Your task to perform on an android device: turn off location Image 0: 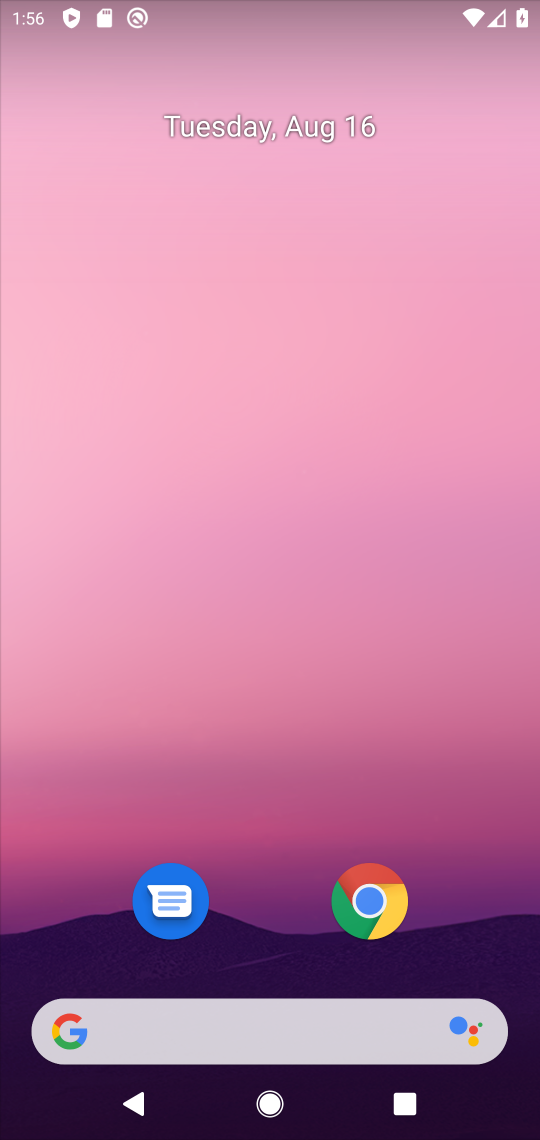
Step 0: press home button
Your task to perform on an android device: turn off location Image 1: 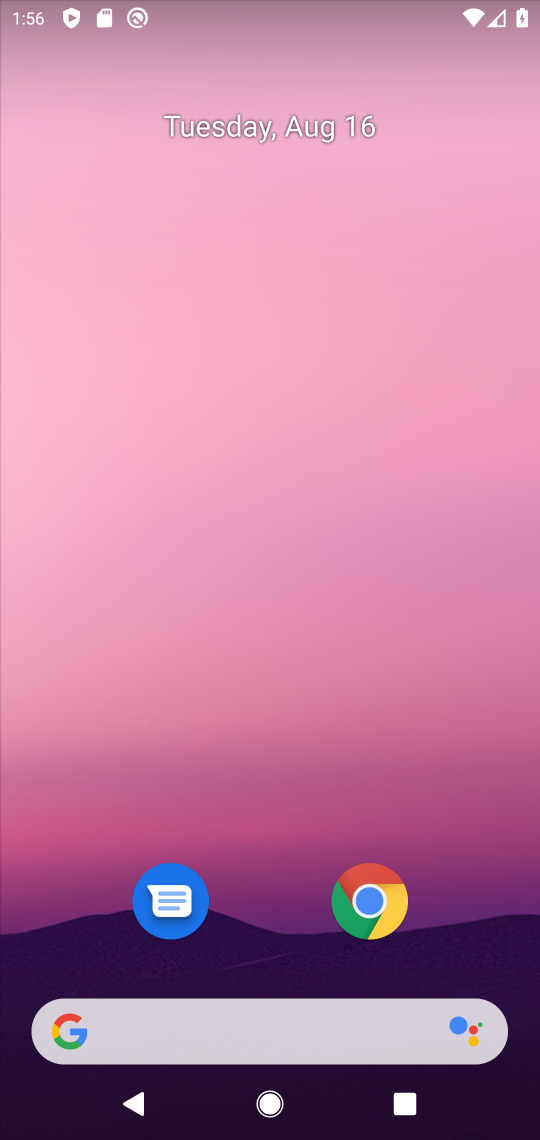
Step 1: drag from (368, 783) to (257, 139)
Your task to perform on an android device: turn off location Image 2: 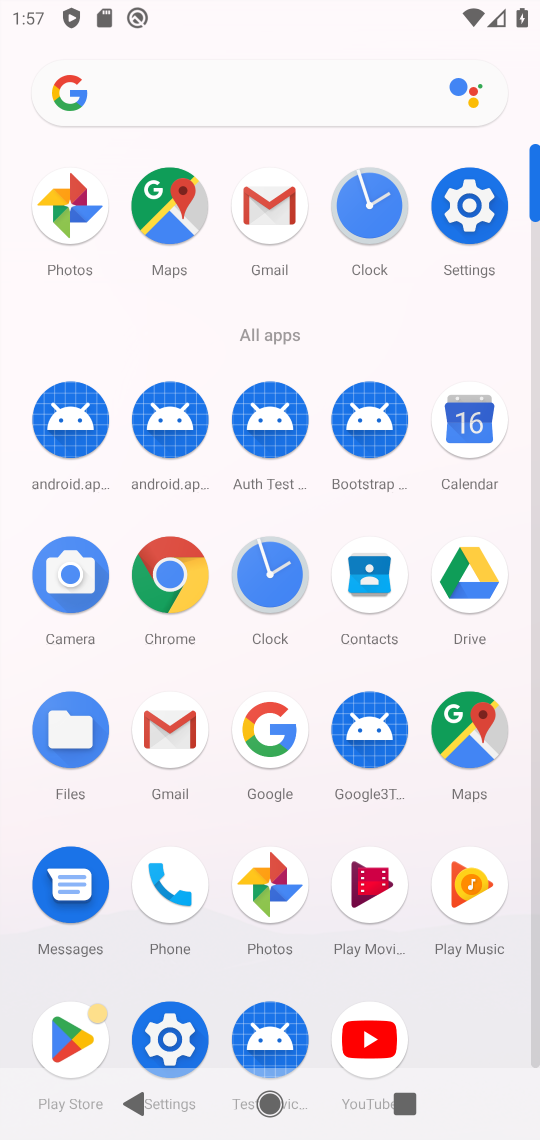
Step 2: click (482, 213)
Your task to perform on an android device: turn off location Image 3: 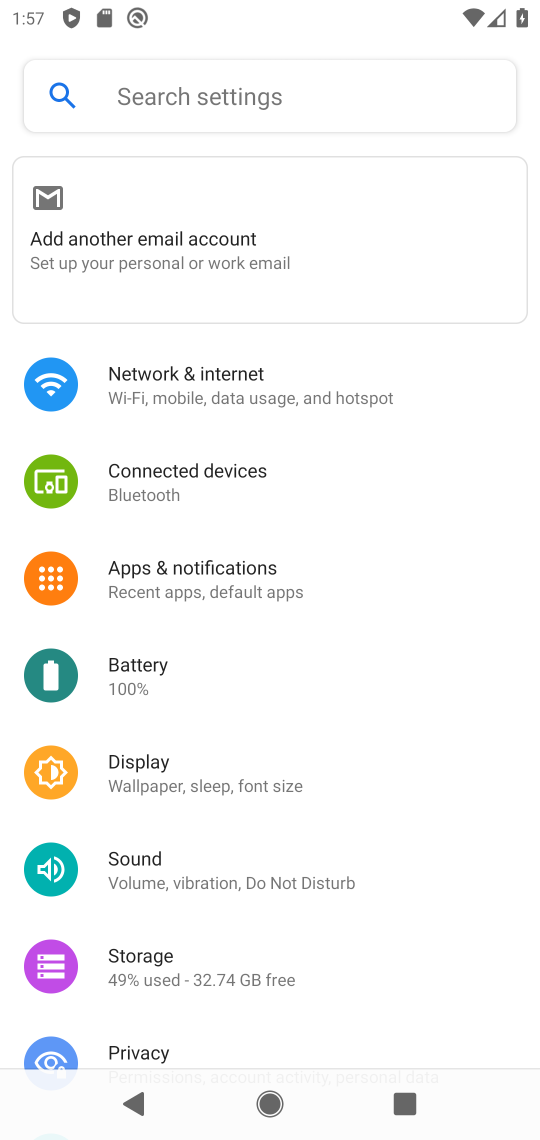
Step 3: drag from (205, 915) to (263, 368)
Your task to perform on an android device: turn off location Image 4: 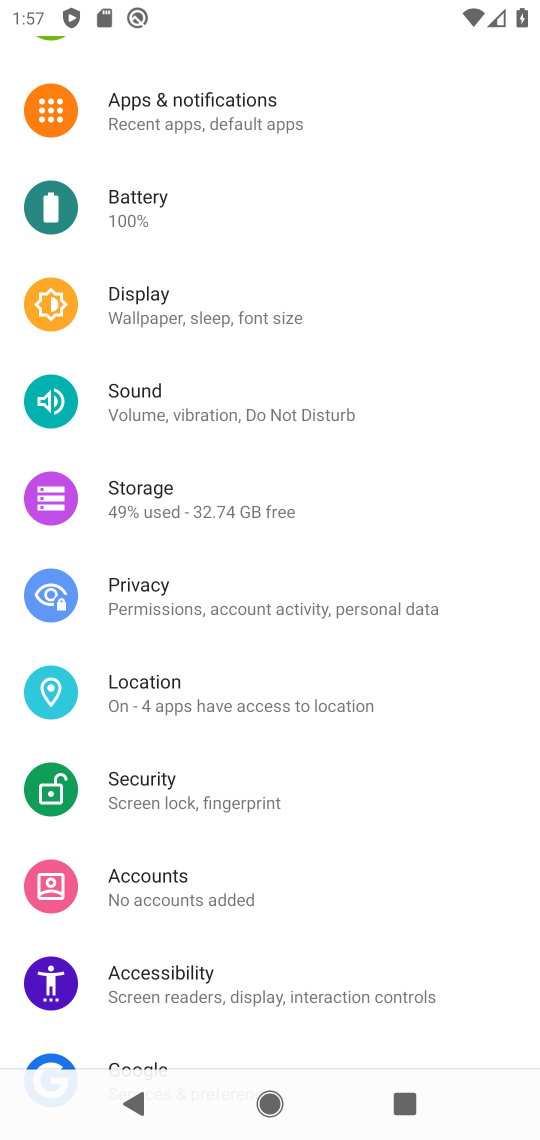
Step 4: drag from (143, 822) to (148, 725)
Your task to perform on an android device: turn off location Image 5: 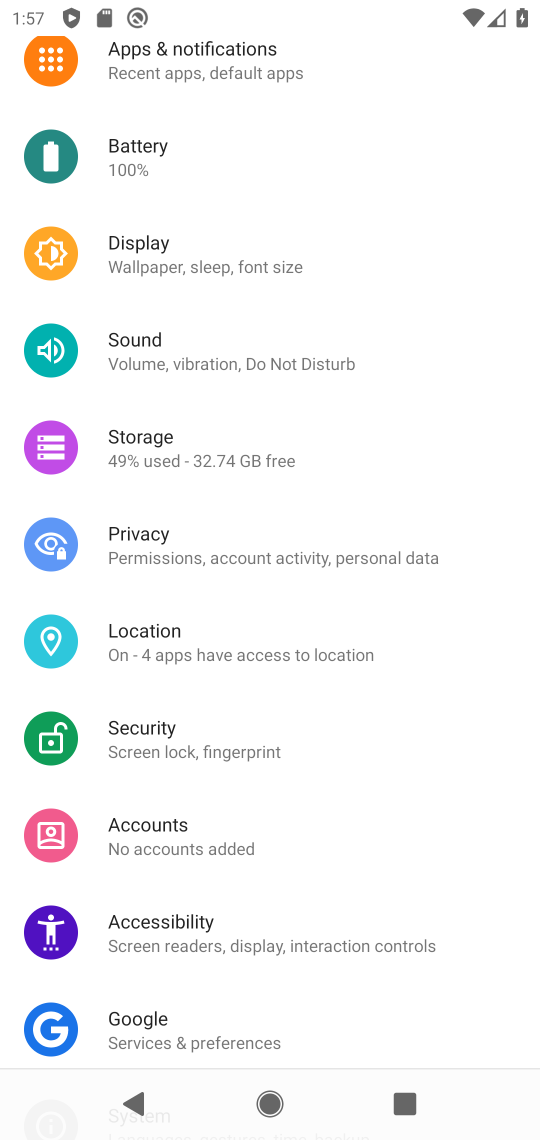
Step 5: click (171, 649)
Your task to perform on an android device: turn off location Image 6: 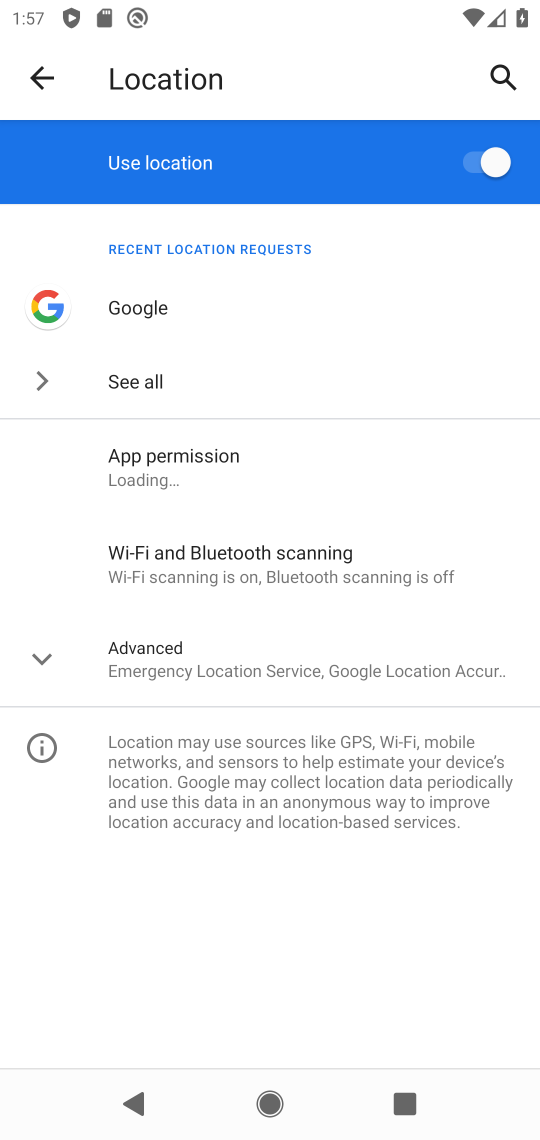
Step 6: click (487, 171)
Your task to perform on an android device: turn off location Image 7: 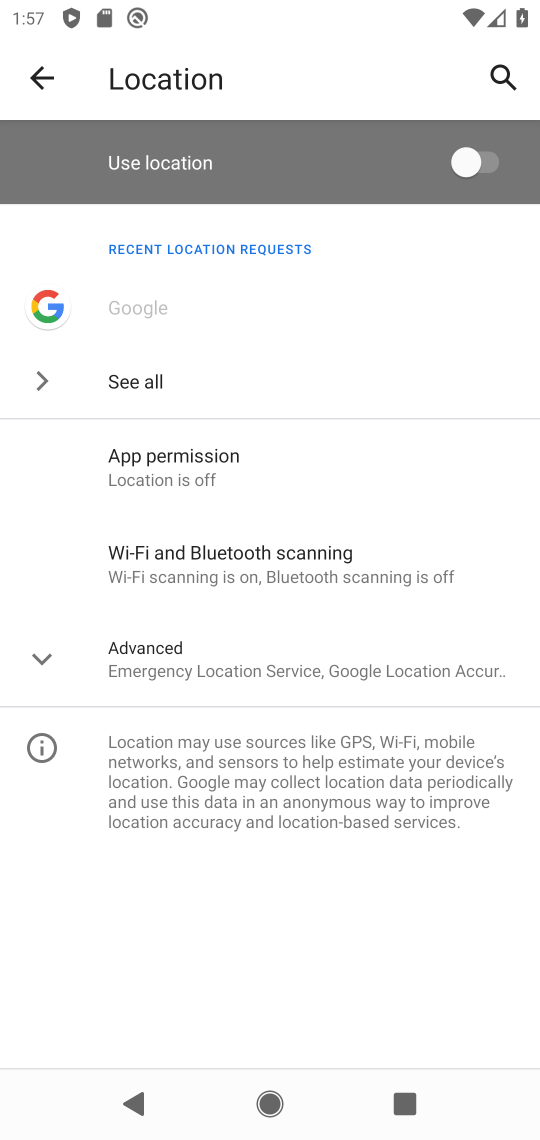
Step 7: task complete